Your task to perform on an android device: Go to location settings Image 0: 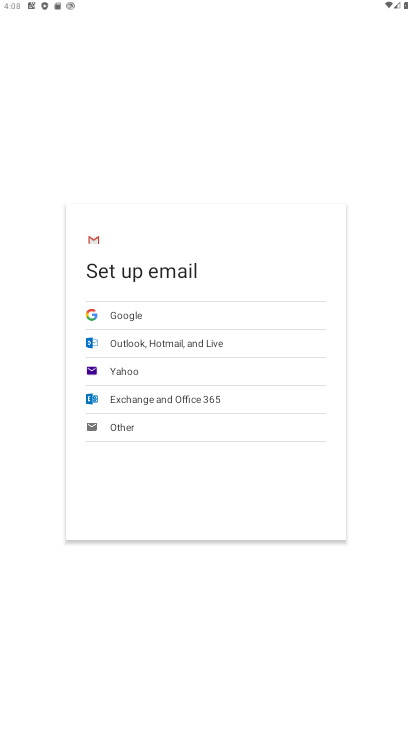
Step 0: press home button
Your task to perform on an android device: Go to location settings Image 1: 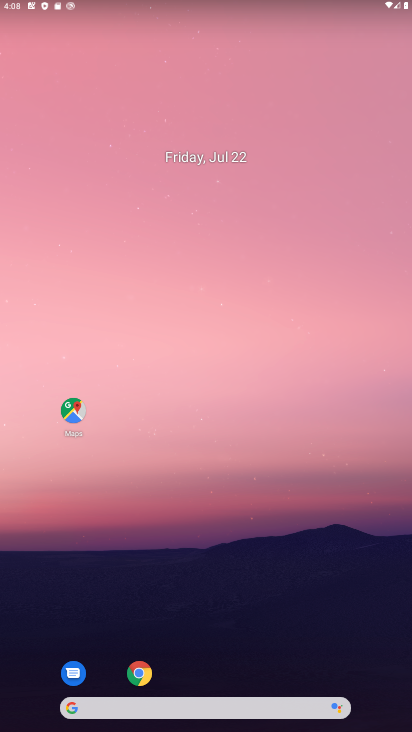
Step 1: drag from (197, 667) to (215, 6)
Your task to perform on an android device: Go to location settings Image 2: 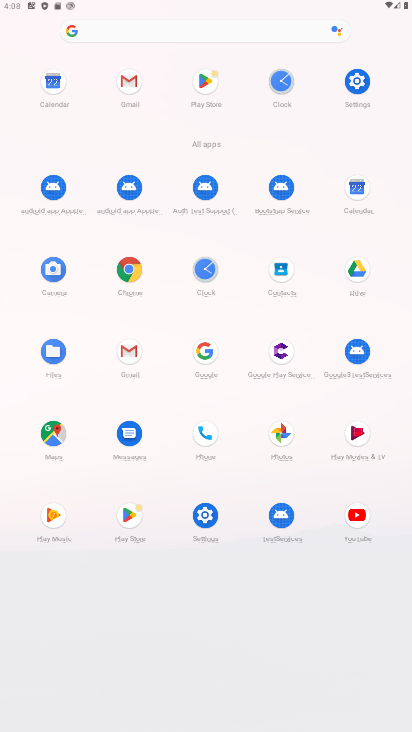
Step 2: click (357, 76)
Your task to perform on an android device: Go to location settings Image 3: 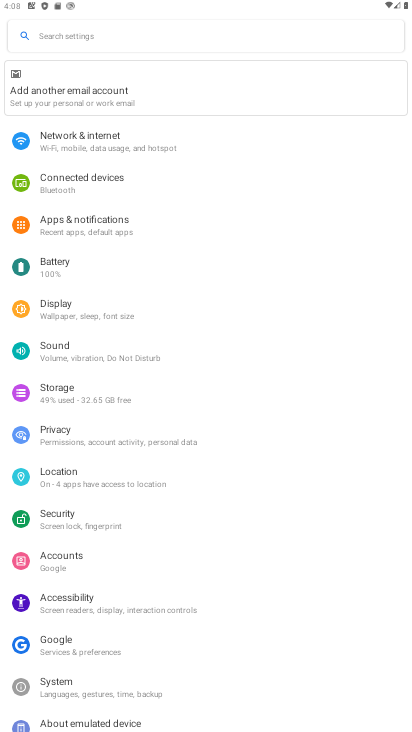
Step 3: click (88, 469)
Your task to perform on an android device: Go to location settings Image 4: 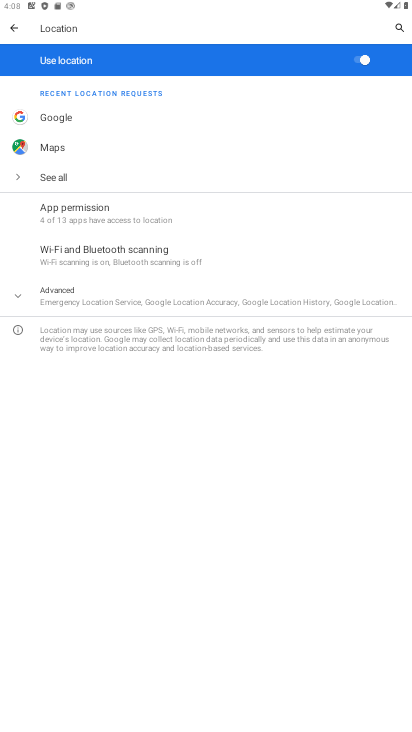
Step 4: click (10, 294)
Your task to perform on an android device: Go to location settings Image 5: 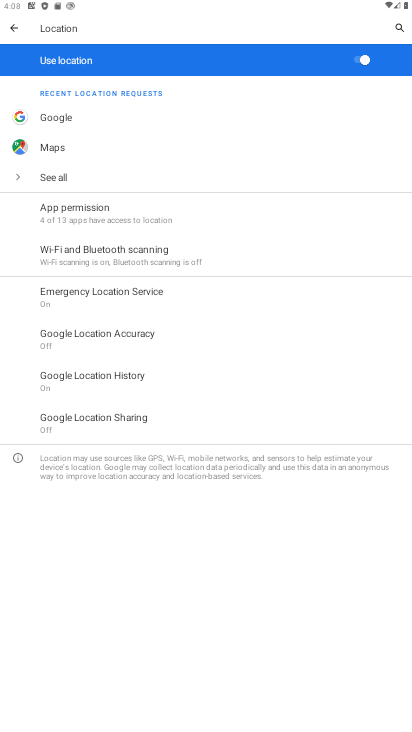
Step 5: task complete